Your task to perform on an android device: Check the weather Image 0: 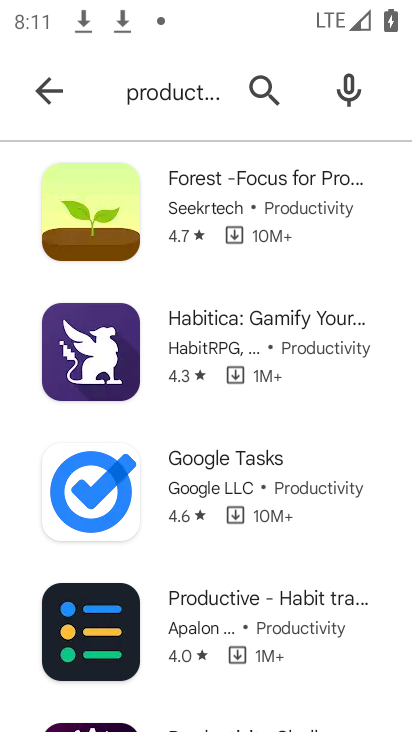
Step 0: press home button
Your task to perform on an android device: Check the weather Image 1: 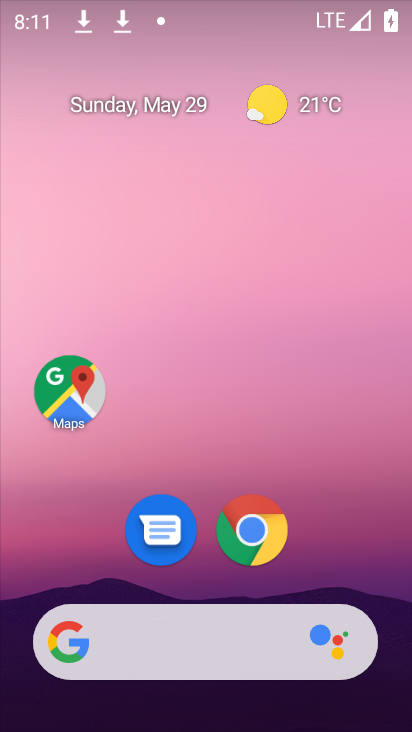
Step 1: click (129, 643)
Your task to perform on an android device: Check the weather Image 2: 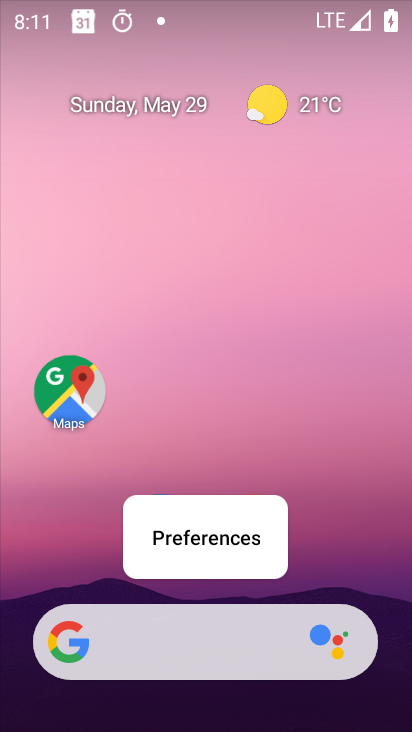
Step 2: click (188, 644)
Your task to perform on an android device: Check the weather Image 3: 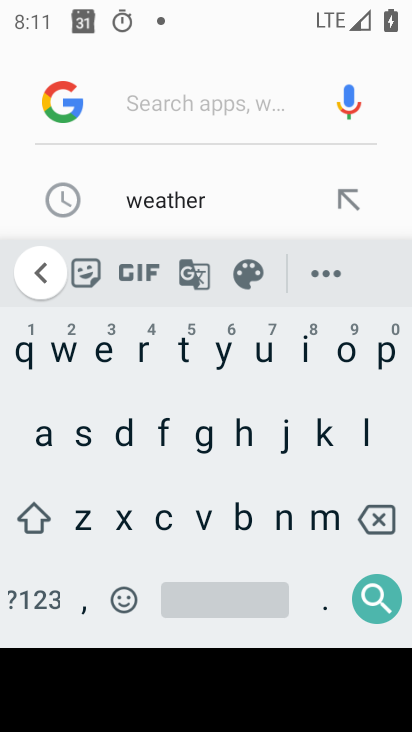
Step 3: click (172, 200)
Your task to perform on an android device: Check the weather Image 4: 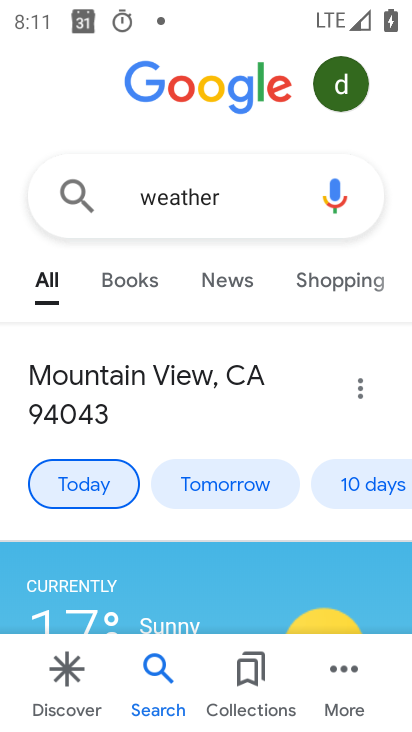
Step 4: task complete